Your task to perform on an android device: Open Maps and search for coffee Image 0: 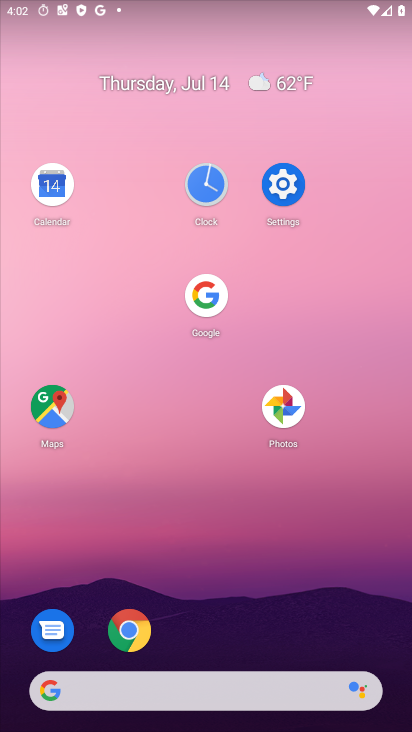
Step 0: click (48, 400)
Your task to perform on an android device: Open Maps and search for coffee Image 1: 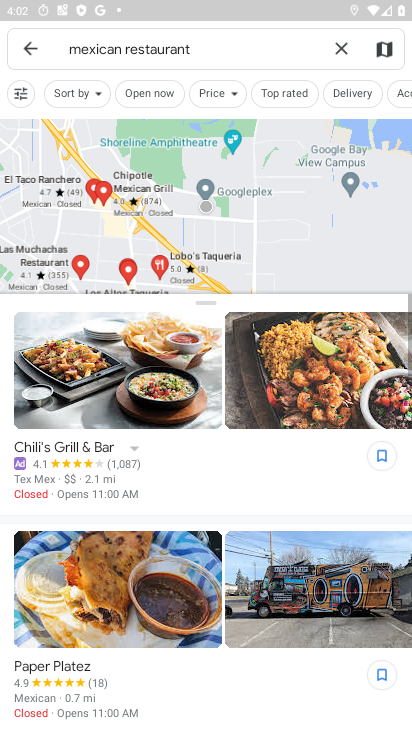
Step 1: click (337, 46)
Your task to perform on an android device: Open Maps and search for coffee Image 2: 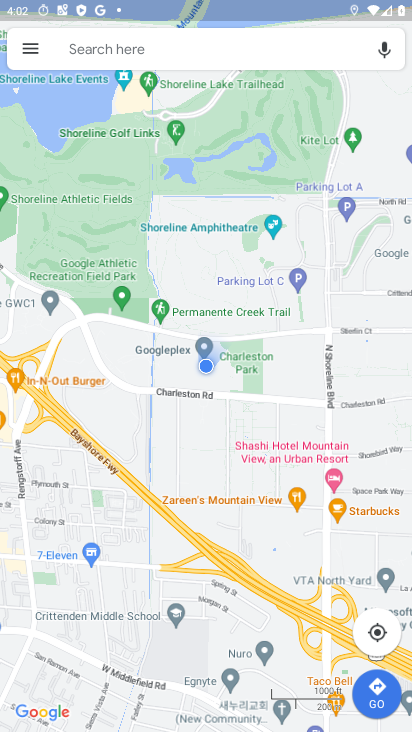
Step 2: click (178, 47)
Your task to perform on an android device: Open Maps and search for coffee Image 3: 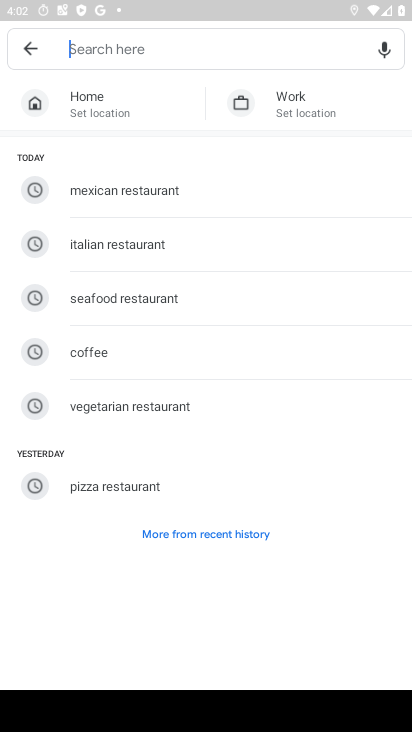
Step 3: click (122, 345)
Your task to perform on an android device: Open Maps and search for coffee Image 4: 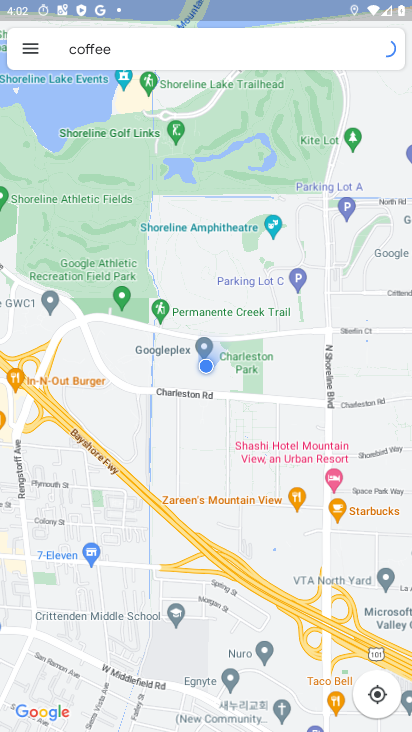
Step 4: task complete